Your task to perform on an android device: open the mobile data screen to see how much data has been used Image 0: 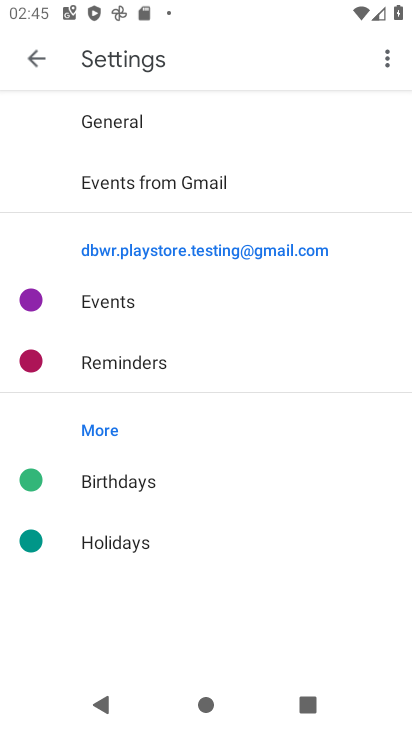
Step 0: click (242, 170)
Your task to perform on an android device: open the mobile data screen to see how much data has been used Image 1: 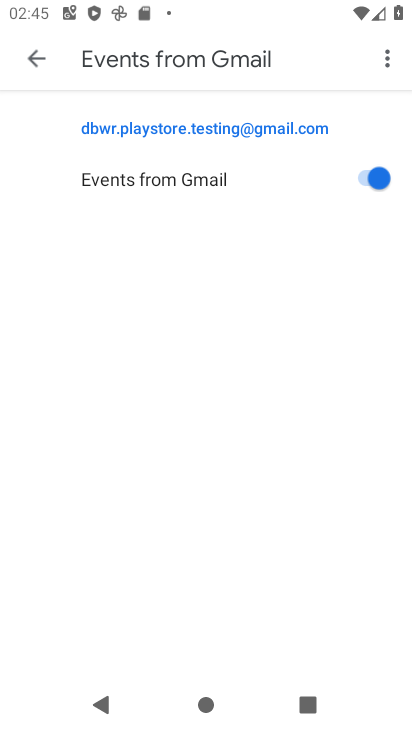
Step 1: drag from (212, 567) to (273, 317)
Your task to perform on an android device: open the mobile data screen to see how much data has been used Image 2: 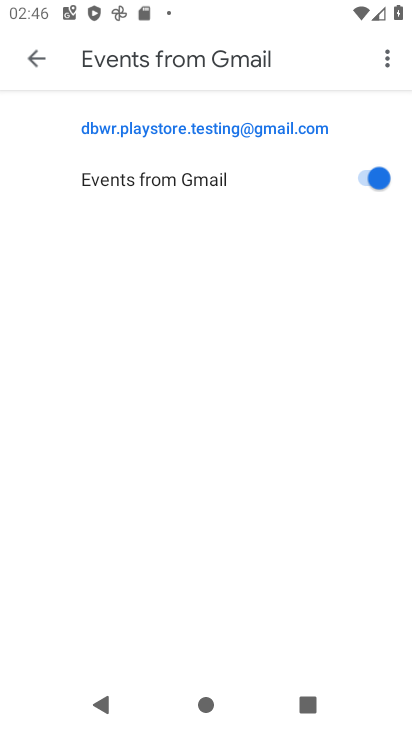
Step 2: press home button
Your task to perform on an android device: open the mobile data screen to see how much data has been used Image 3: 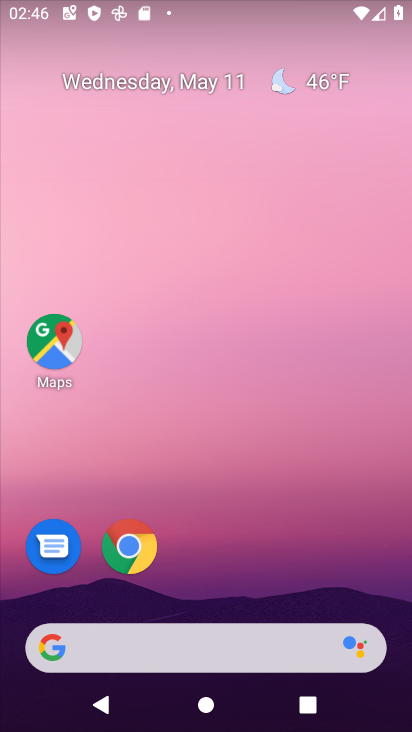
Step 3: drag from (239, 570) to (231, 165)
Your task to perform on an android device: open the mobile data screen to see how much data has been used Image 4: 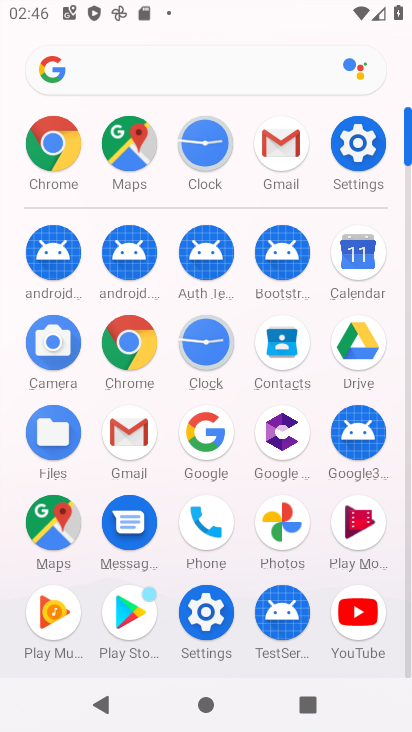
Step 4: click (362, 140)
Your task to perform on an android device: open the mobile data screen to see how much data has been used Image 5: 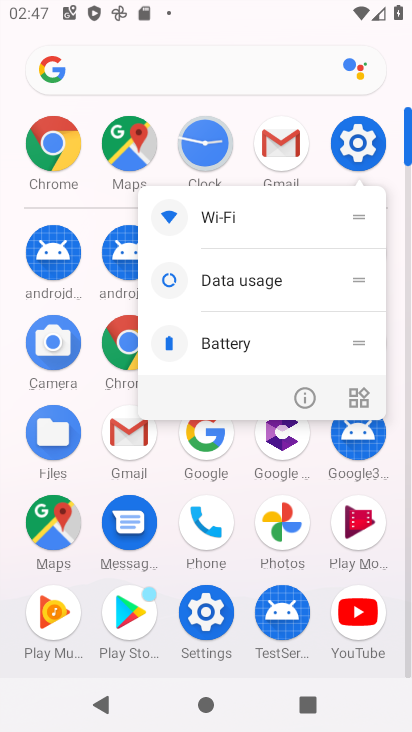
Step 5: click (262, 272)
Your task to perform on an android device: open the mobile data screen to see how much data has been used Image 6: 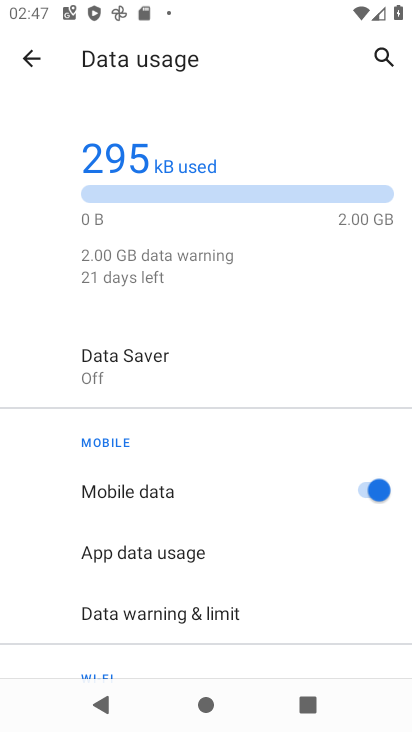
Step 6: task complete